Your task to perform on an android device: turn on priority inbox in the gmail app Image 0: 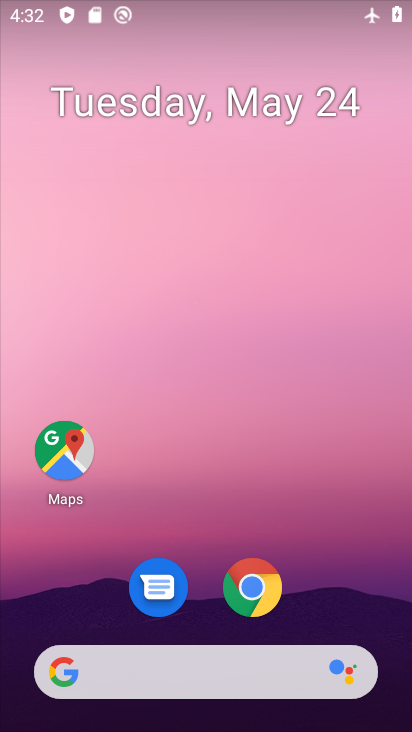
Step 0: drag from (355, 560) to (266, 62)
Your task to perform on an android device: turn on priority inbox in the gmail app Image 1: 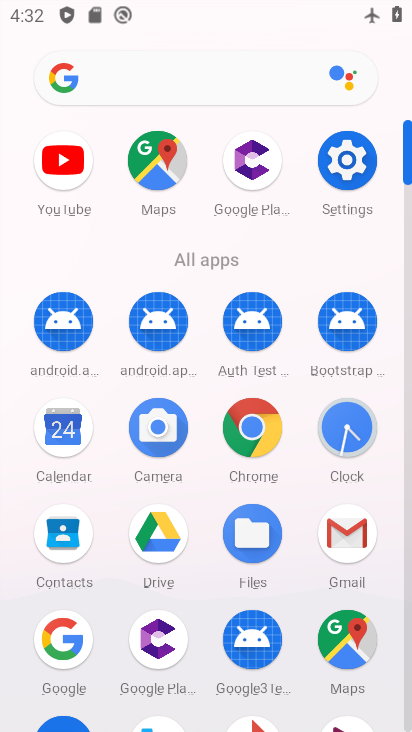
Step 1: click (353, 526)
Your task to perform on an android device: turn on priority inbox in the gmail app Image 2: 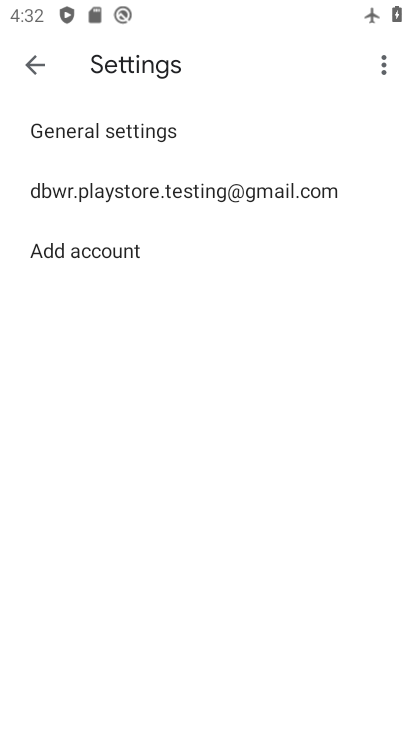
Step 2: click (152, 185)
Your task to perform on an android device: turn on priority inbox in the gmail app Image 3: 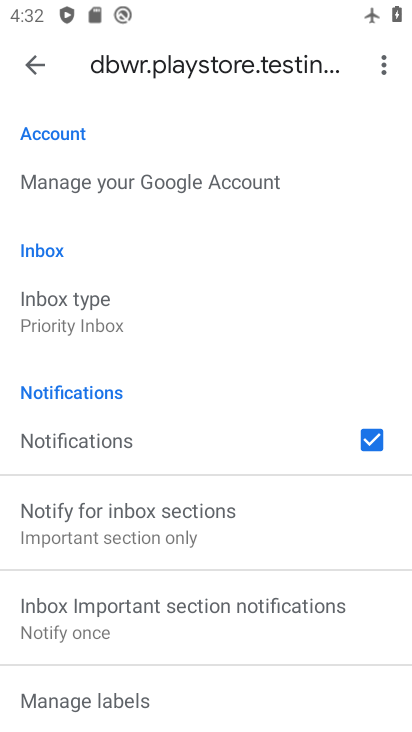
Step 3: click (133, 318)
Your task to perform on an android device: turn on priority inbox in the gmail app Image 4: 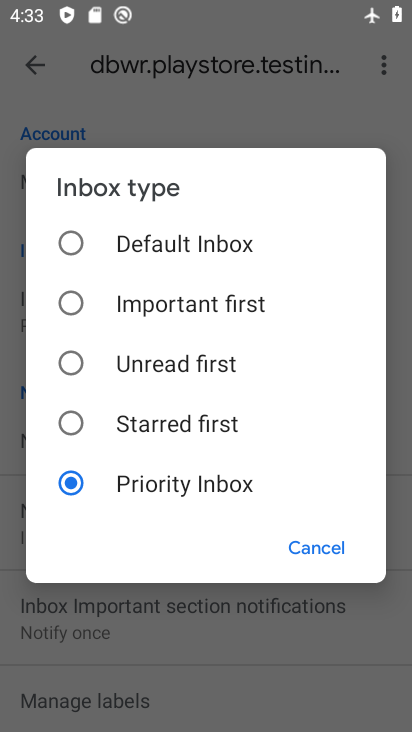
Step 4: task complete